Your task to perform on an android device: Check the weather Image 0: 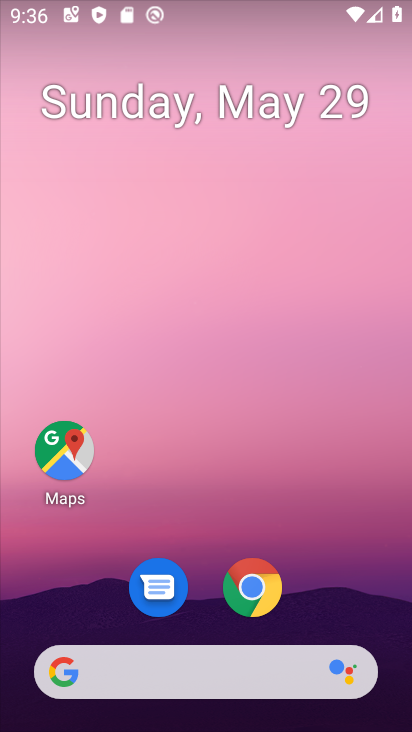
Step 0: click (161, 677)
Your task to perform on an android device: Check the weather Image 1: 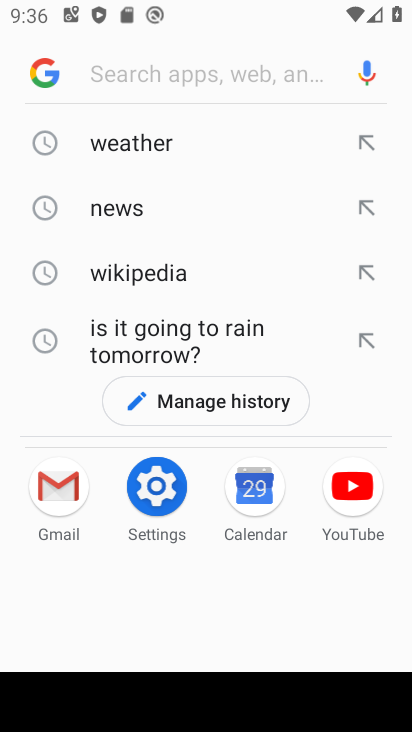
Step 1: click (129, 135)
Your task to perform on an android device: Check the weather Image 2: 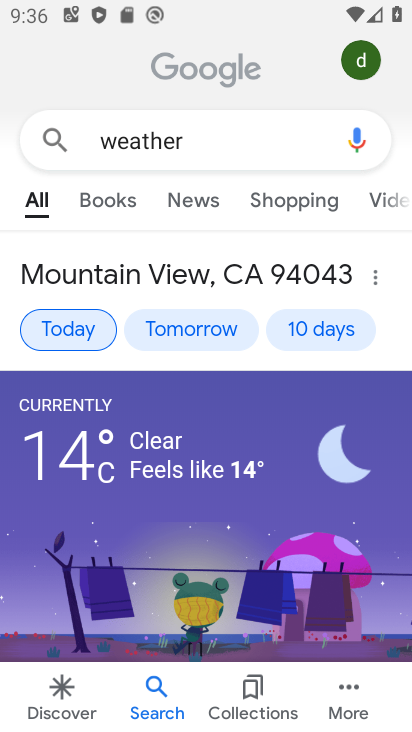
Step 2: task complete